Your task to perform on an android device: Search for usb-b on walmart, select the first entry, and add it to the cart. Image 0: 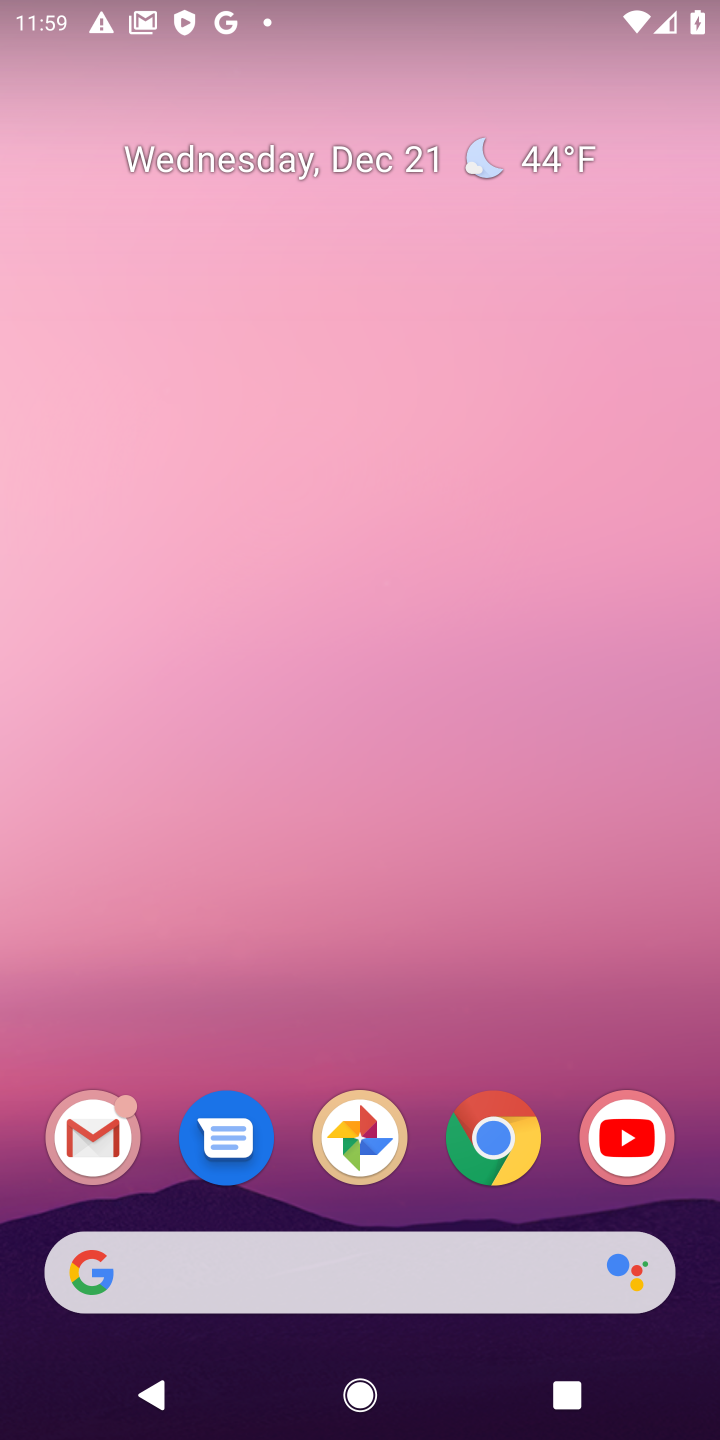
Step 0: click (490, 1141)
Your task to perform on an android device: Search for usb-b on walmart, select the first entry, and add it to the cart. Image 1: 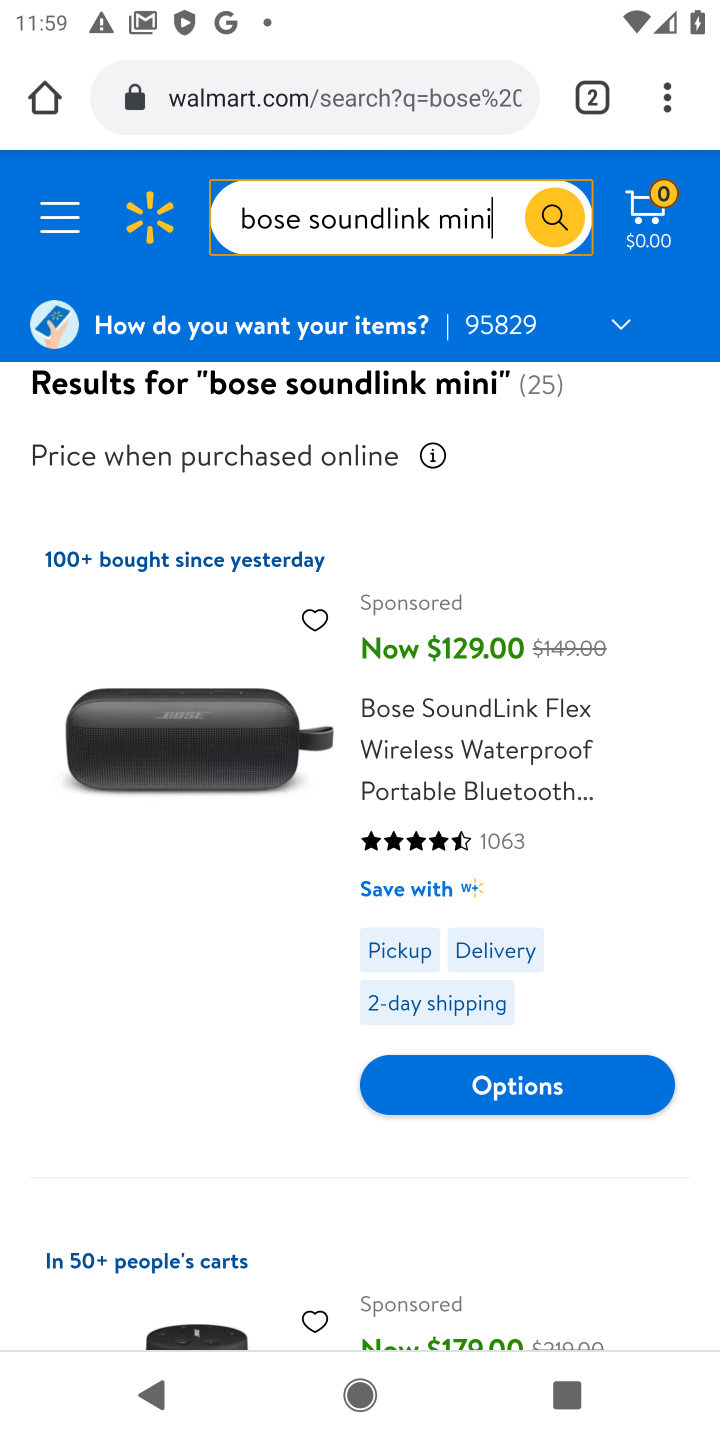
Step 1: click (487, 226)
Your task to perform on an android device: Search for usb-b on walmart, select the first entry, and add it to the cart. Image 2: 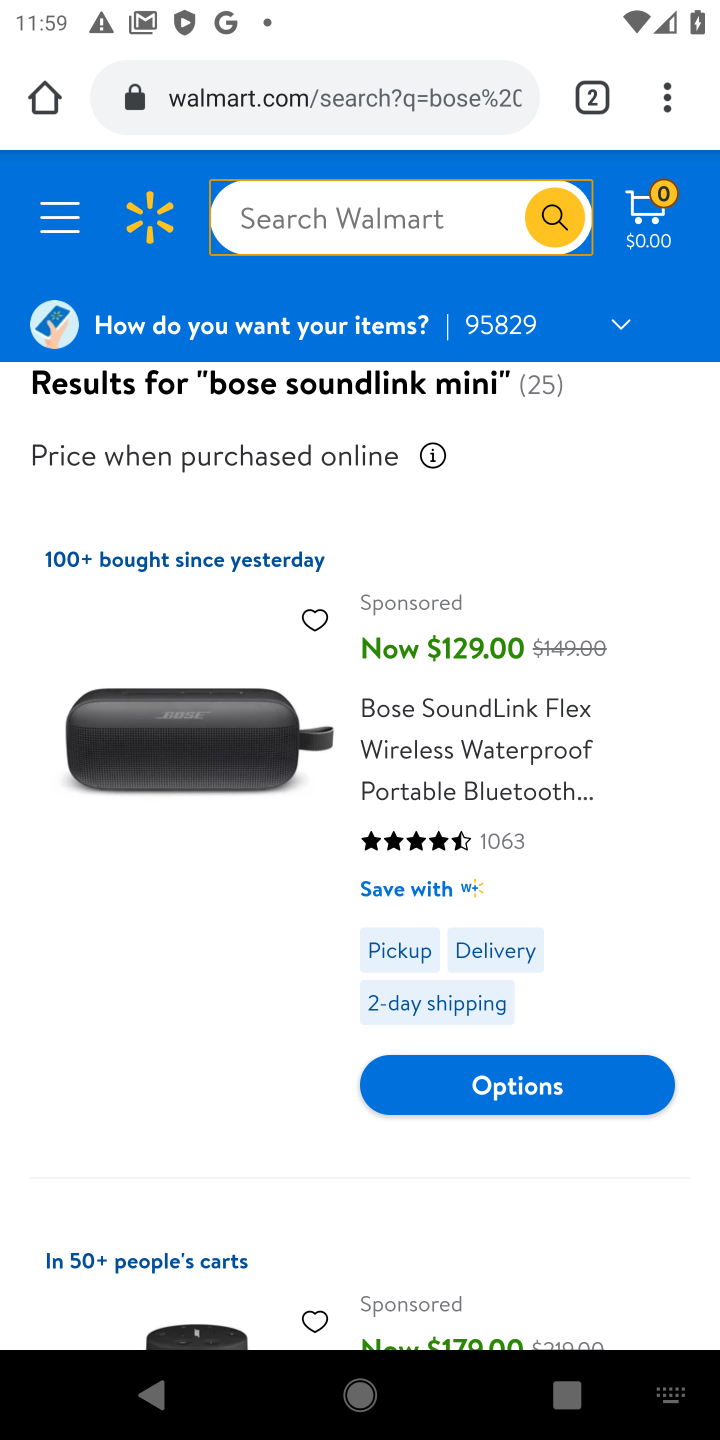
Step 2: type "usb-b"
Your task to perform on an android device: Search for usb-b on walmart, select the first entry, and add it to the cart. Image 3: 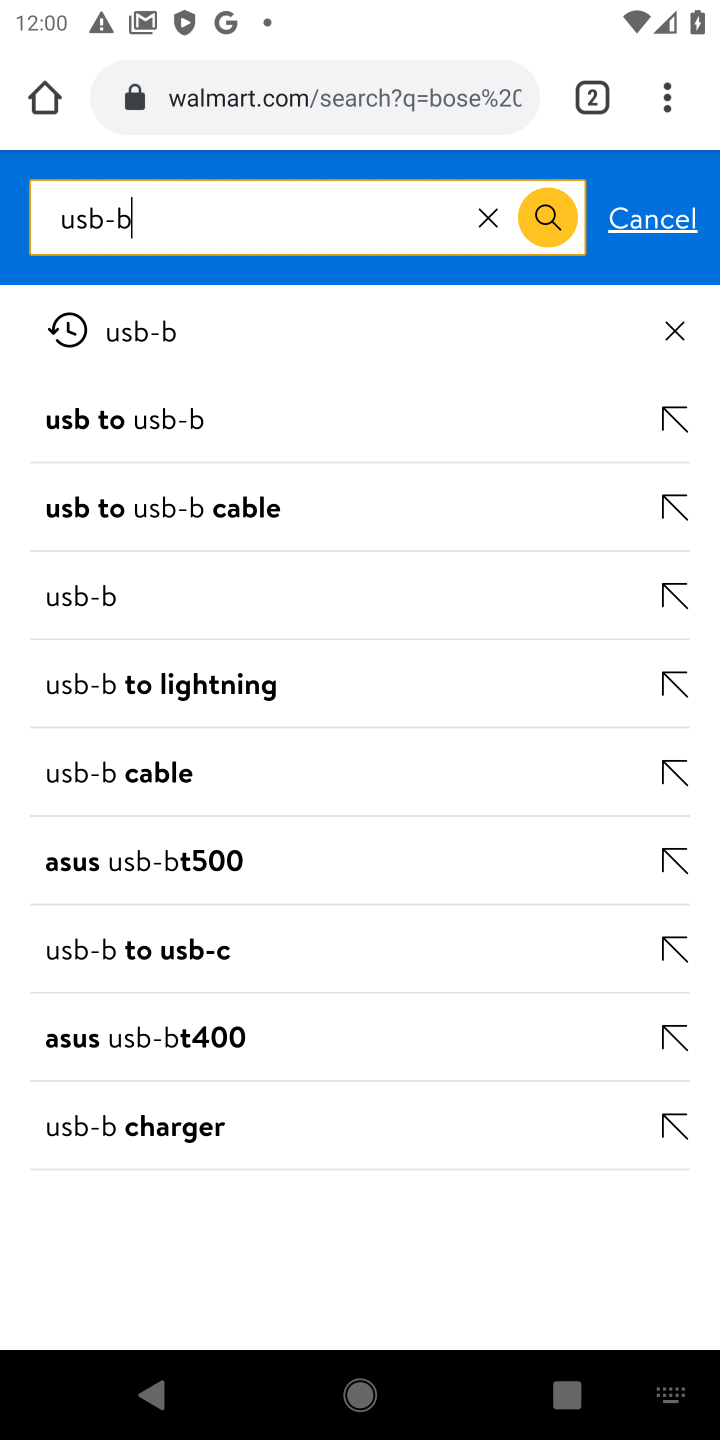
Step 3: click (116, 346)
Your task to perform on an android device: Search for usb-b on walmart, select the first entry, and add it to the cart. Image 4: 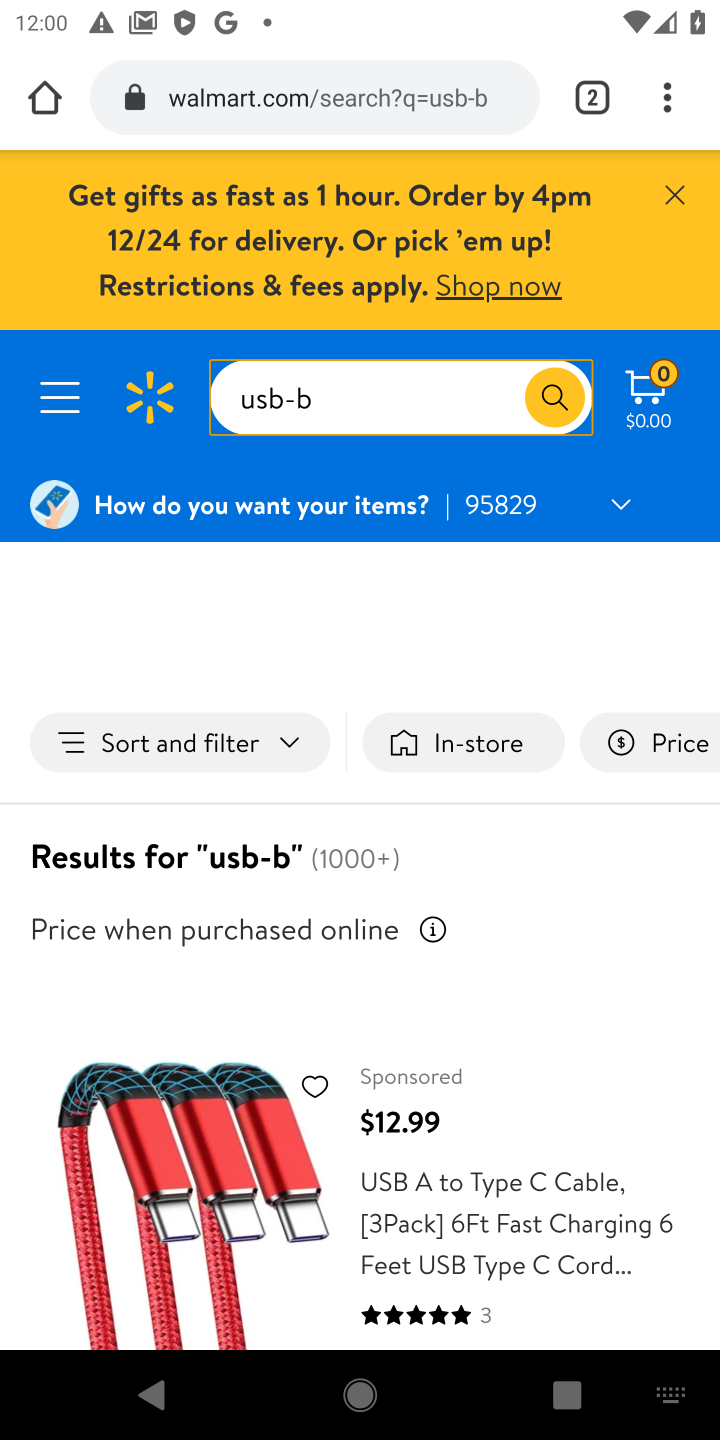
Step 4: task complete